Your task to perform on an android device: Open Yahoo.com Image 0: 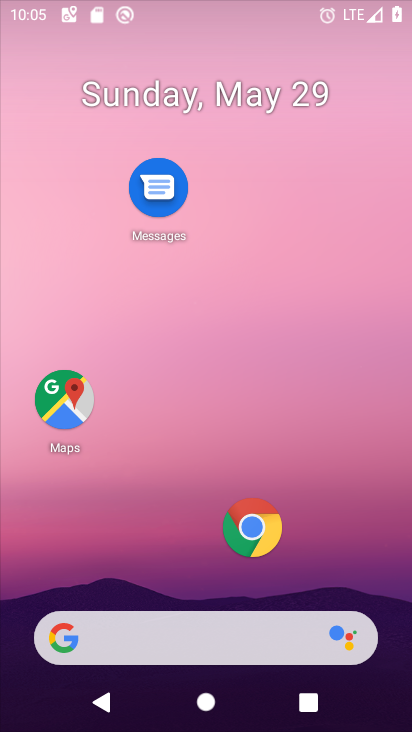
Step 0: press home button
Your task to perform on an android device: Open Yahoo.com Image 1: 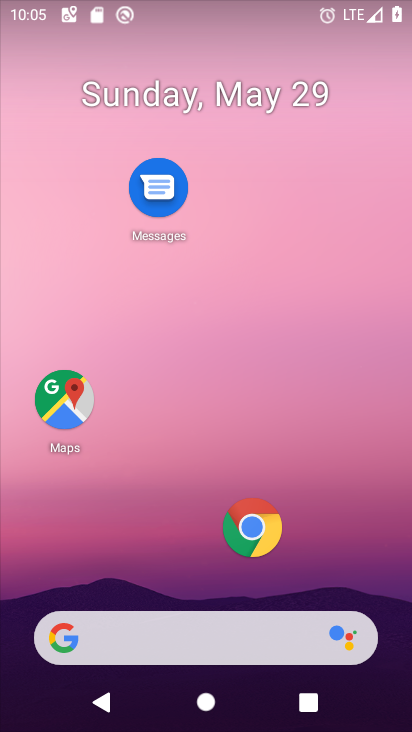
Step 1: click (253, 521)
Your task to perform on an android device: Open Yahoo.com Image 2: 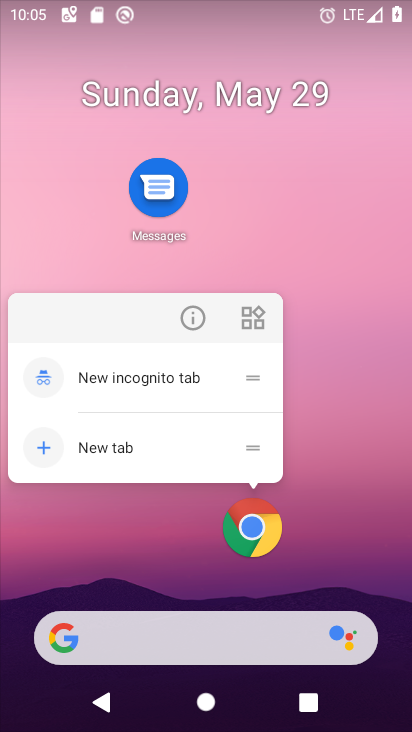
Step 2: click (247, 522)
Your task to perform on an android device: Open Yahoo.com Image 3: 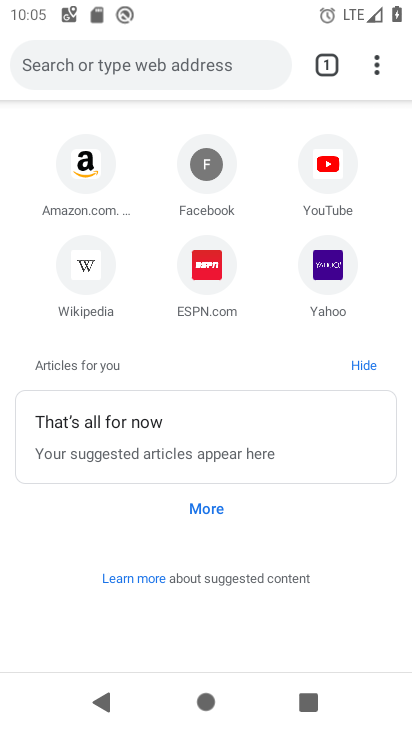
Step 3: click (325, 258)
Your task to perform on an android device: Open Yahoo.com Image 4: 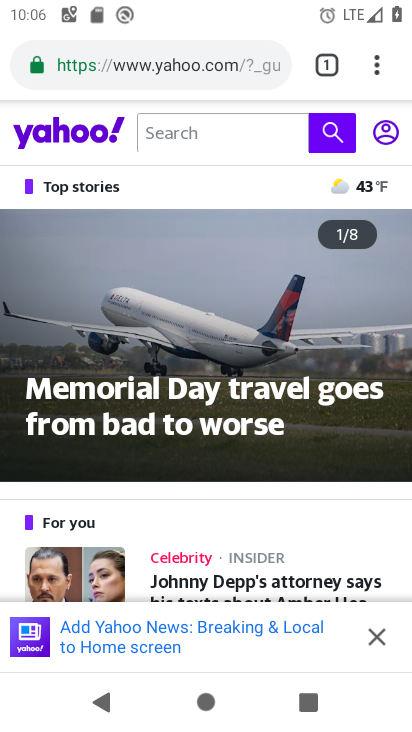
Step 4: click (376, 638)
Your task to perform on an android device: Open Yahoo.com Image 5: 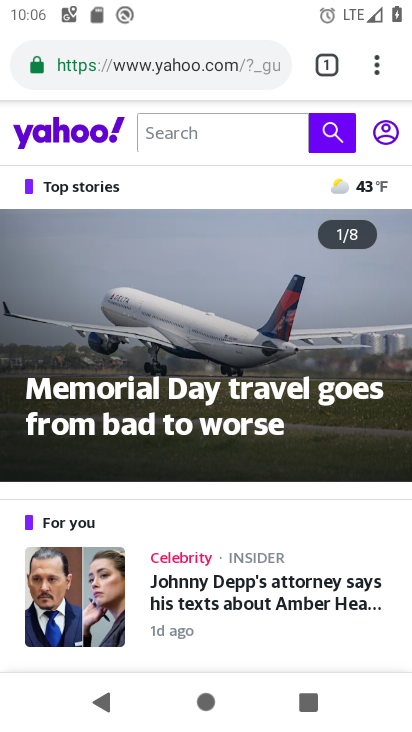
Step 5: task complete